Your task to perform on an android device: clear all cookies in the chrome app Image 0: 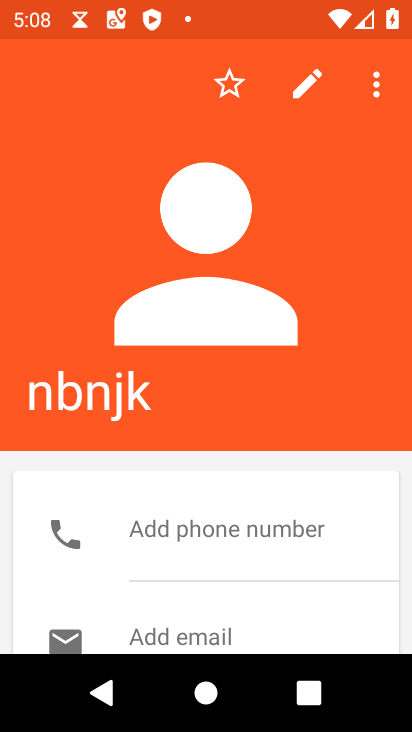
Step 0: drag from (244, 636) to (253, 334)
Your task to perform on an android device: clear all cookies in the chrome app Image 1: 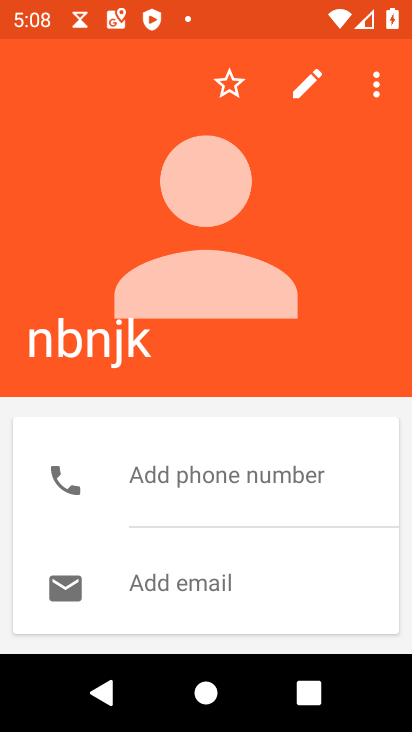
Step 1: drag from (279, 567) to (134, 44)
Your task to perform on an android device: clear all cookies in the chrome app Image 2: 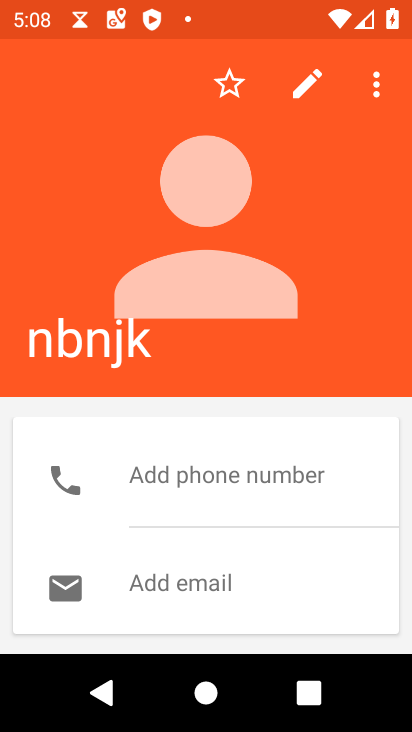
Step 2: drag from (165, 287) to (259, 662)
Your task to perform on an android device: clear all cookies in the chrome app Image 3: 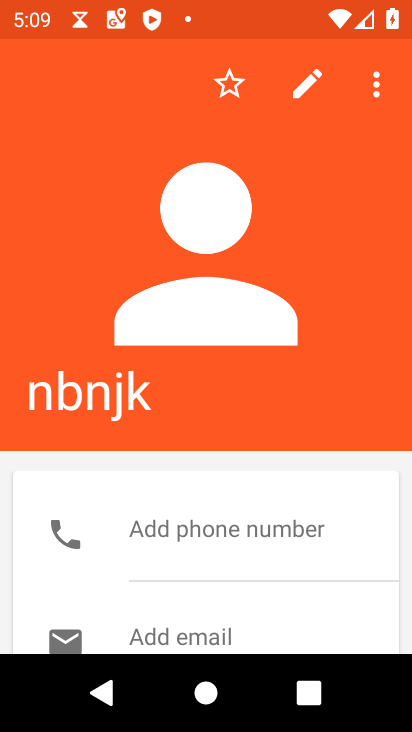
Step 3: press home button
Your task to perform on an android device: clear all cookies in the chrome app Image 4: 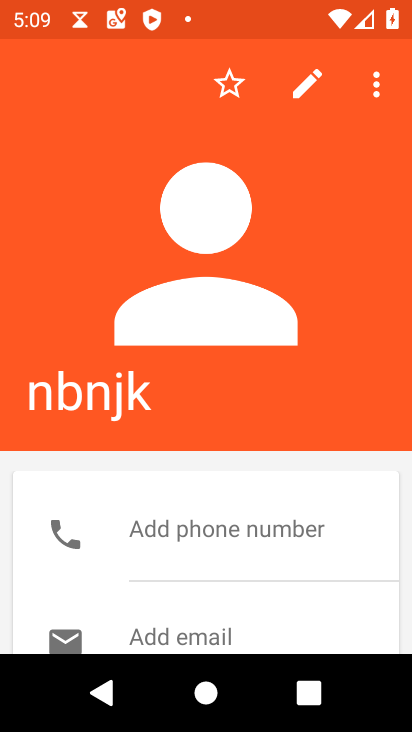
Step 4: press home button
Your task to perform on an android device: clear all cookies in the chrome app Image 5: 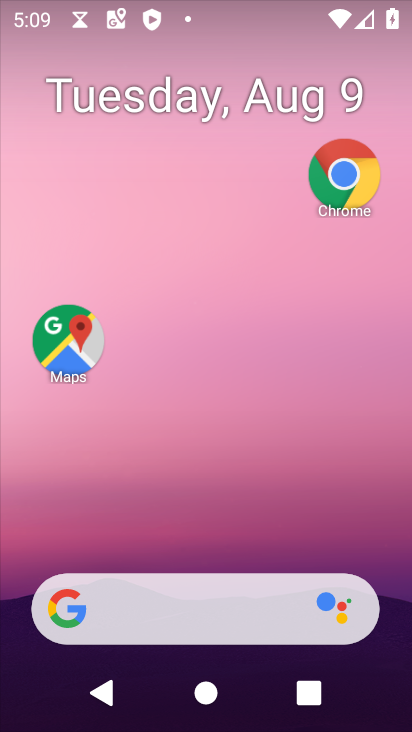
Step 5: drag from (190, 555) to (204, 345)
Your task to perform on an android device: clear all cookies in the chrome app Image 6: 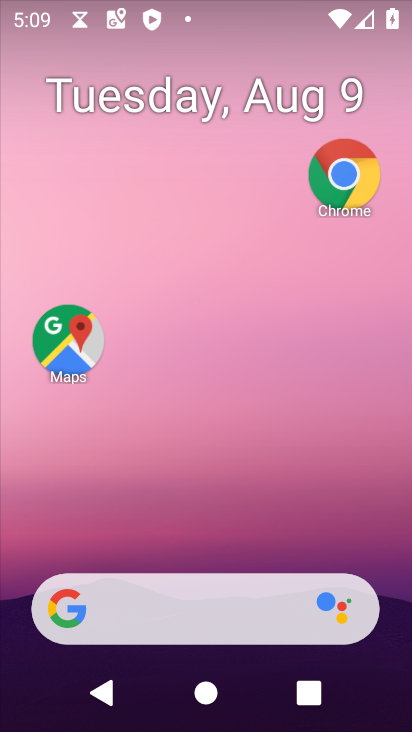
Step 6: drag from (200, 527) to (213, 379)
Your task to perform on an android device: clear all cookies in the chrome app Image 7: 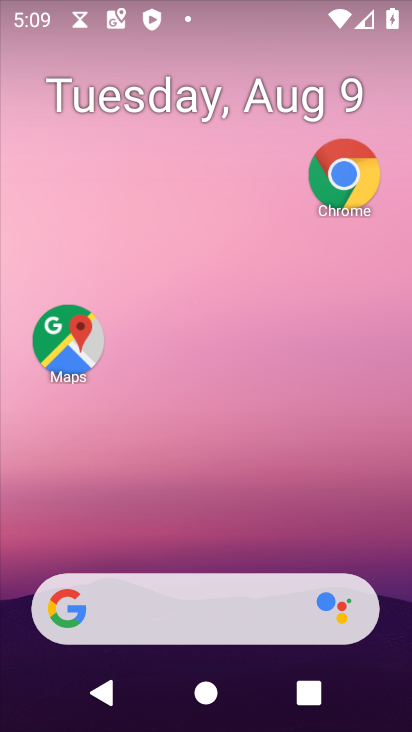
Step 7: drag from (214, 600) to (61, 726)
Your task to perform on an android device: clear all cookies in the chrome app Image 8: 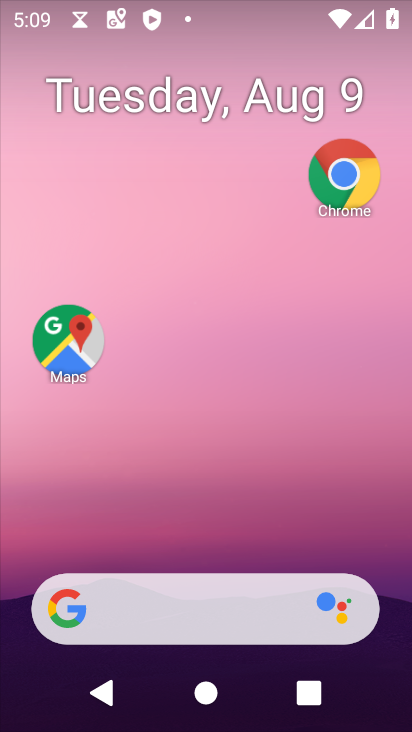
Step 8: drag from (200, 585) to (337, 135)
Your task to perform on an android device: clear all cookies in the chrome app Image 9: 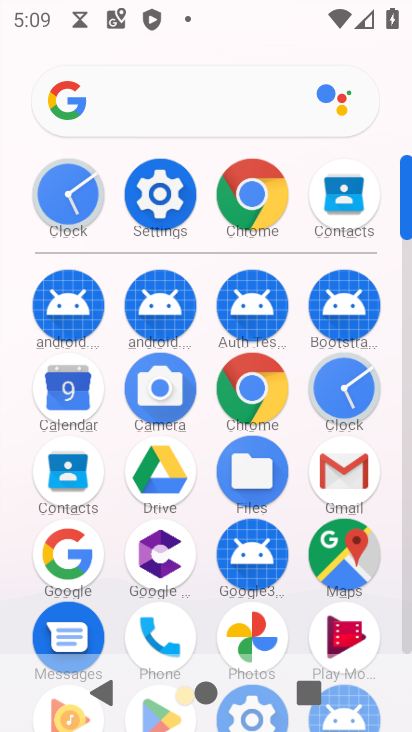
Step 9: drag from (195, 604) to (358, 119)
Your task to perform on an android device: clear all cookies in the chrome app Image 10: 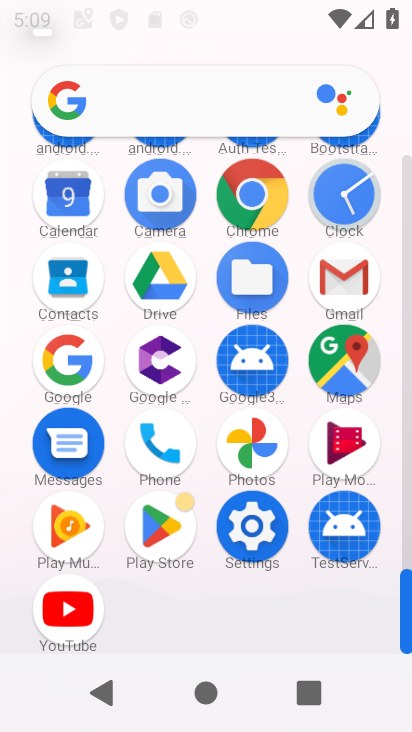
Step 10: click (245, 195)
Your task to perform on an android device: clear all cookies in the chrome app Image 11: 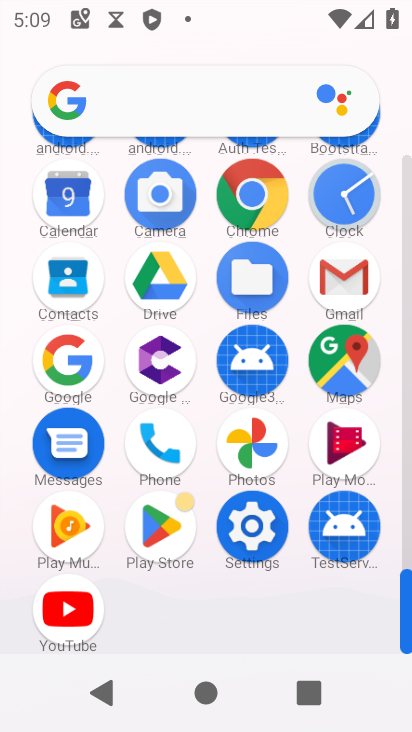
Step 11: click (235, 205)
Your task to perform on an android device: clear all cookies in the chrome app Image 12: 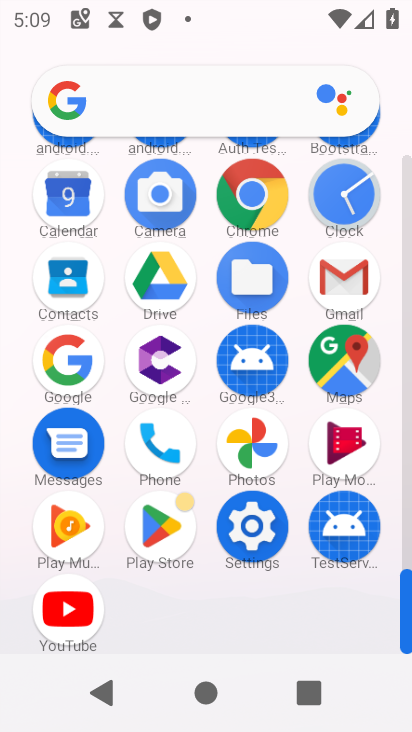
Step 12: click (235, 205)
Your task to perform on an android device: clear all cookies in the chrome app Image 13: 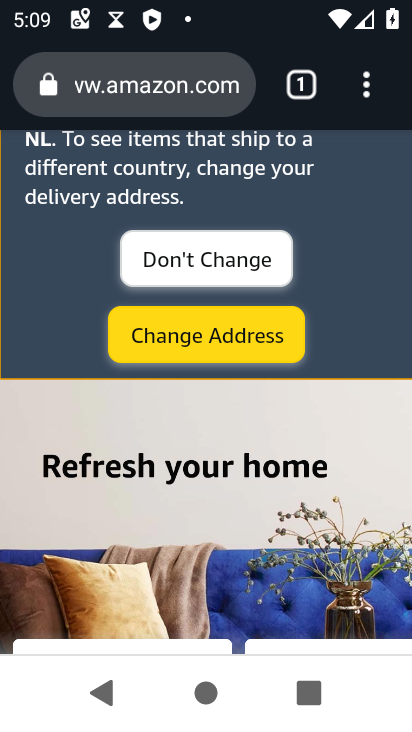
Step 13: drag from (361, 98) to (112, 476)
Your task to perform on an android device: clear all cookies in the chrome app Image 14: 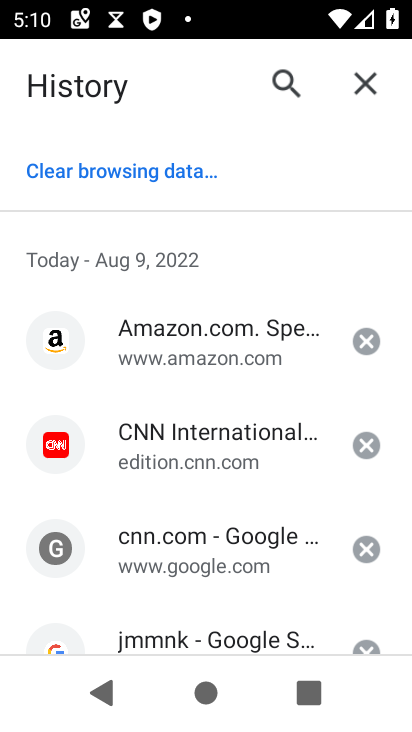
Step 14: click (144, 169)
Your task to perform on an android device: clear all cookies in the chrome app Image 15: 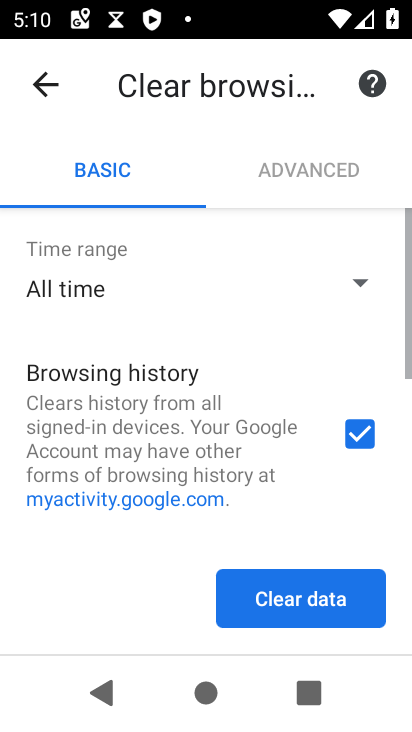
Step 15: drag from (275, 406) to (315, 101)
Your task to perform on an android device: clear all cookies in the chrome app Image 16: 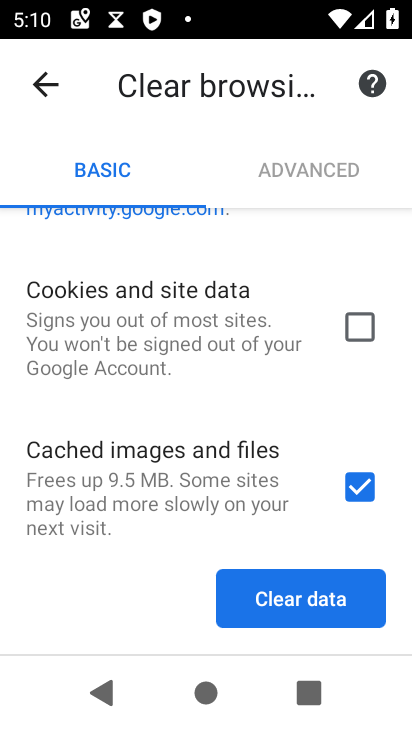
Step 16: click (345, 488)
Your task to perform on an android device: clear all cookies in the chrome app Image 17: 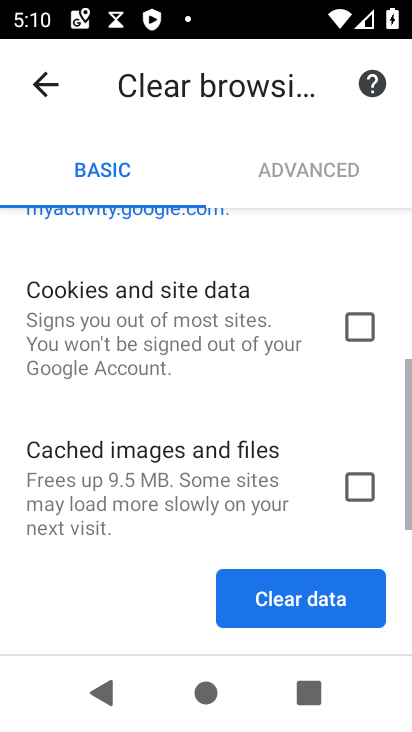
Step 17: click (339, 328)
Your task to perform on an android device: clear all cookies in the chrome app Image 18: 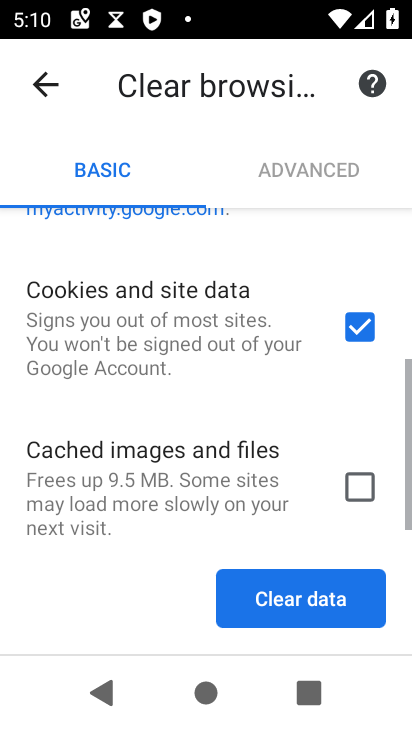
Step 18: drag from (325, 290) to (318, 655)
Your task to perform on an android device: clear all cookies in the chrome app Image 19: 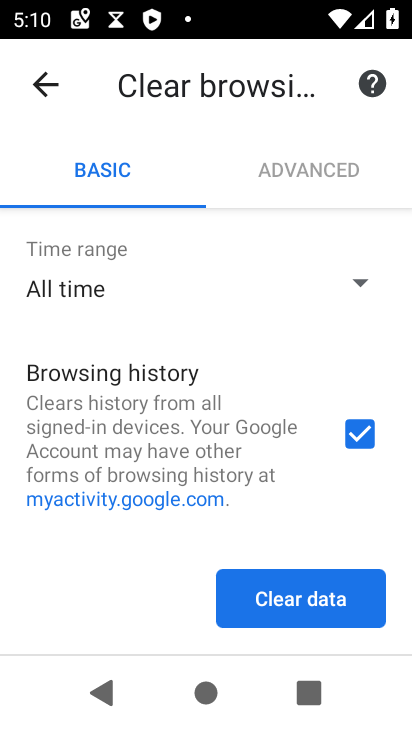
Step 19: click (372, 415)
Your task to perform on an android device: clear all cookies in the chrome app Image 20: 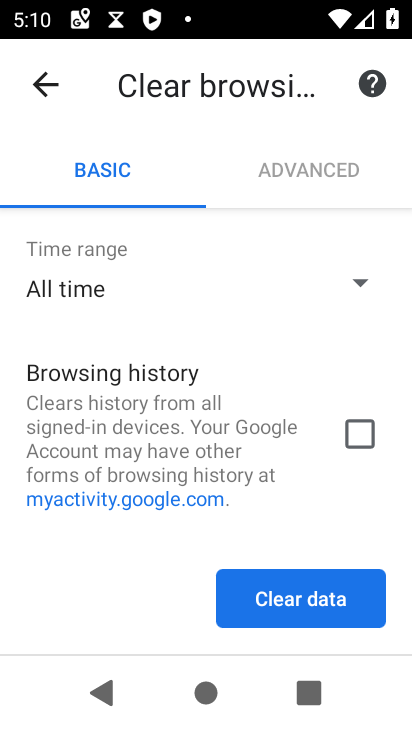
Step 20: click (282, 583)
Your task to perform on an android device: clear all cookies in the chrome app Image 21: 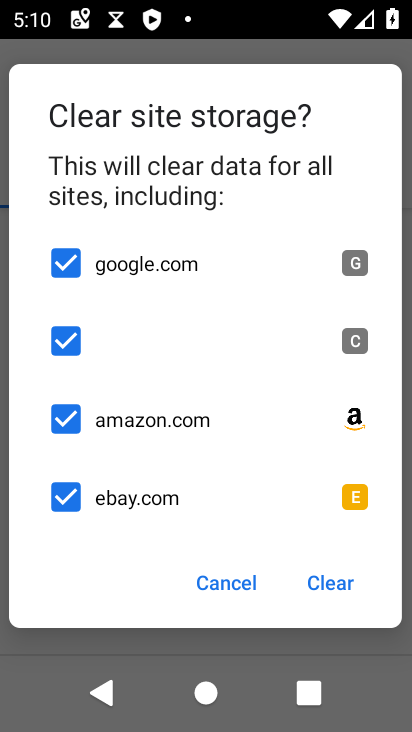
Step 21: click (326, 578)
Your task to perform on an android device: clear all cookies in the chrome app Image 22: 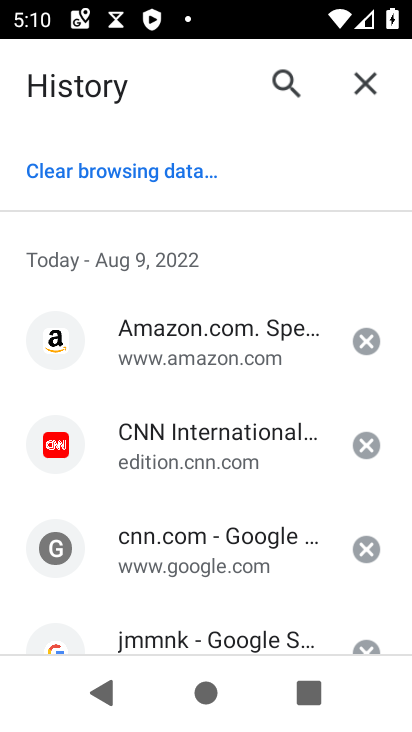
Step 22: task complete